Your task to perform on an android device: Open maps Image 0: 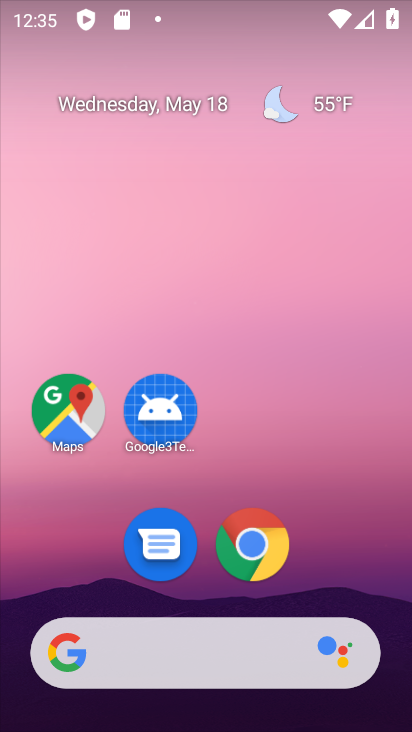
Step 0: click (71, 431)
Your task to perform on an android device: Open maps Image 1: 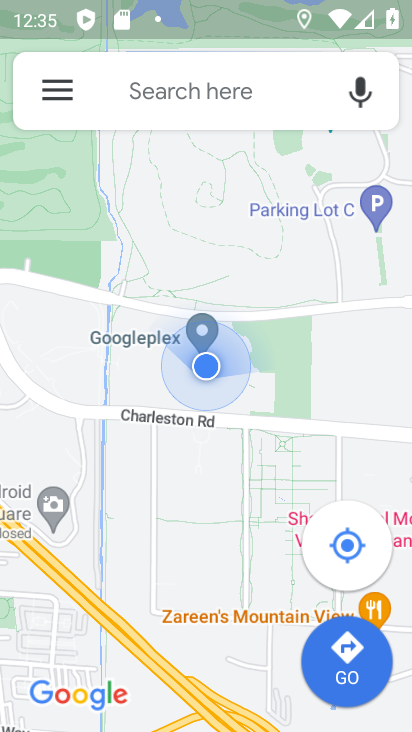
Step 1: task complete